Your task to perform on an android device: What's the weather today? Image 0: 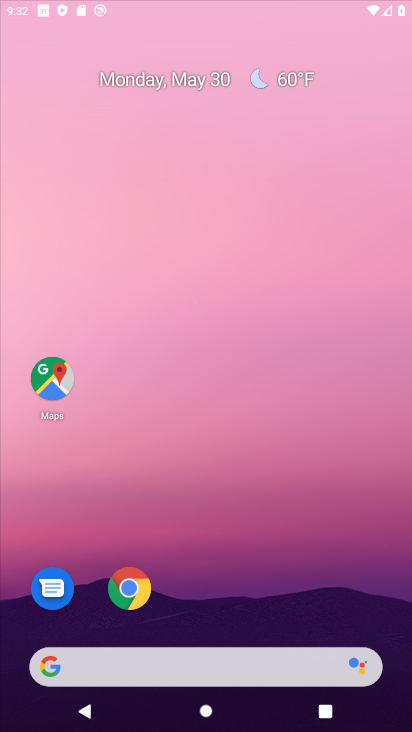
Step 0: click (379, 224)
Your task to perform on an android device: What's the weather today? Image 1: 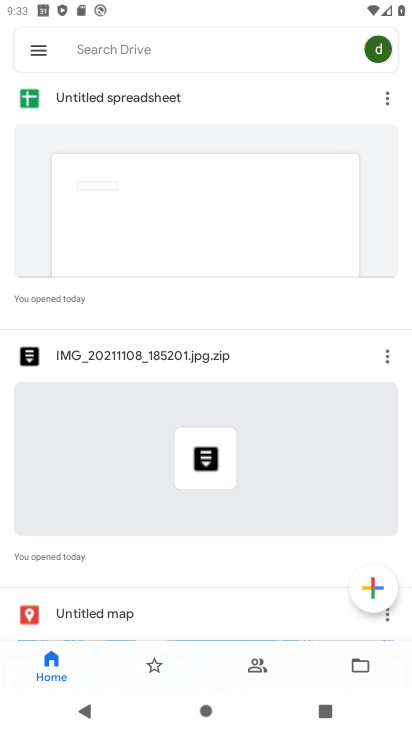
Step 1: press home button
Your task to perform on an android device: What's the weather today? Image 2: 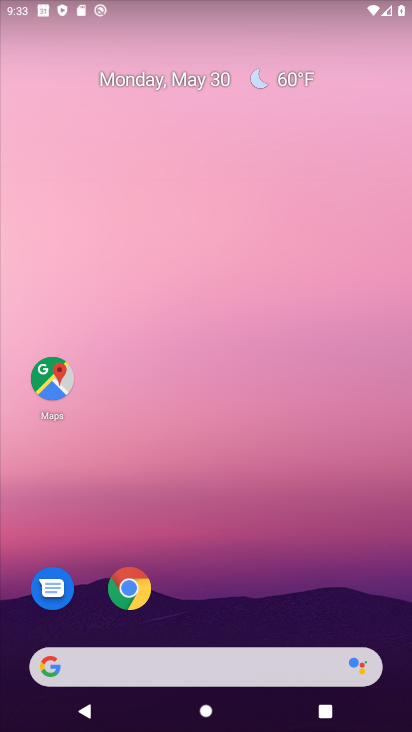
Step 2: click (139, 660)
Your task to perform on an android device: What's the weather today? Image 3: 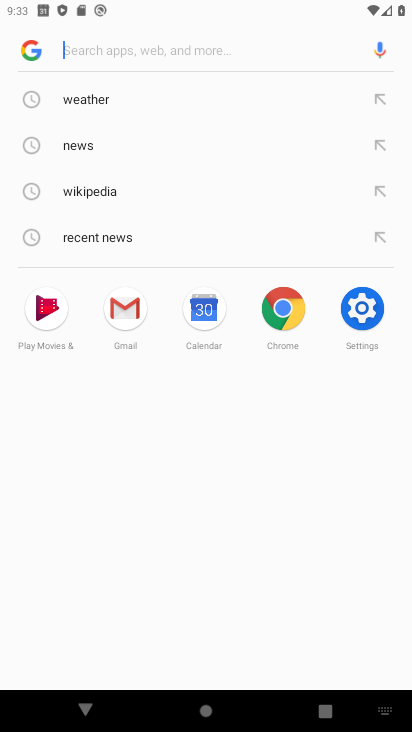
Step 3: click (121, 108)
Your task to perform on an android device: What's the weather today? Image 4: 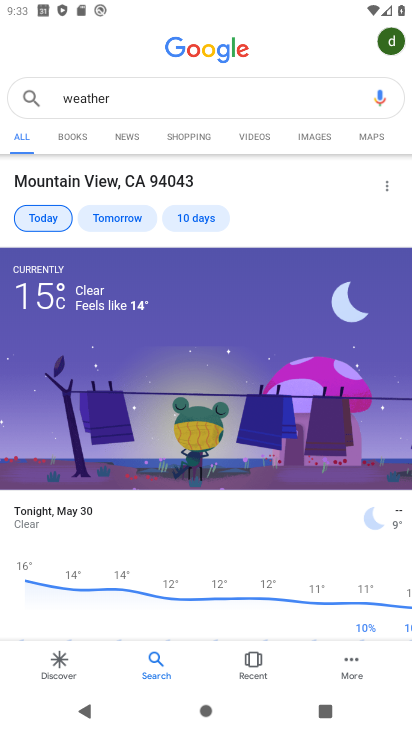
Step 4: task complete